Your task to perform on an android device: Search for custom wallets on Etsy. Image 0: 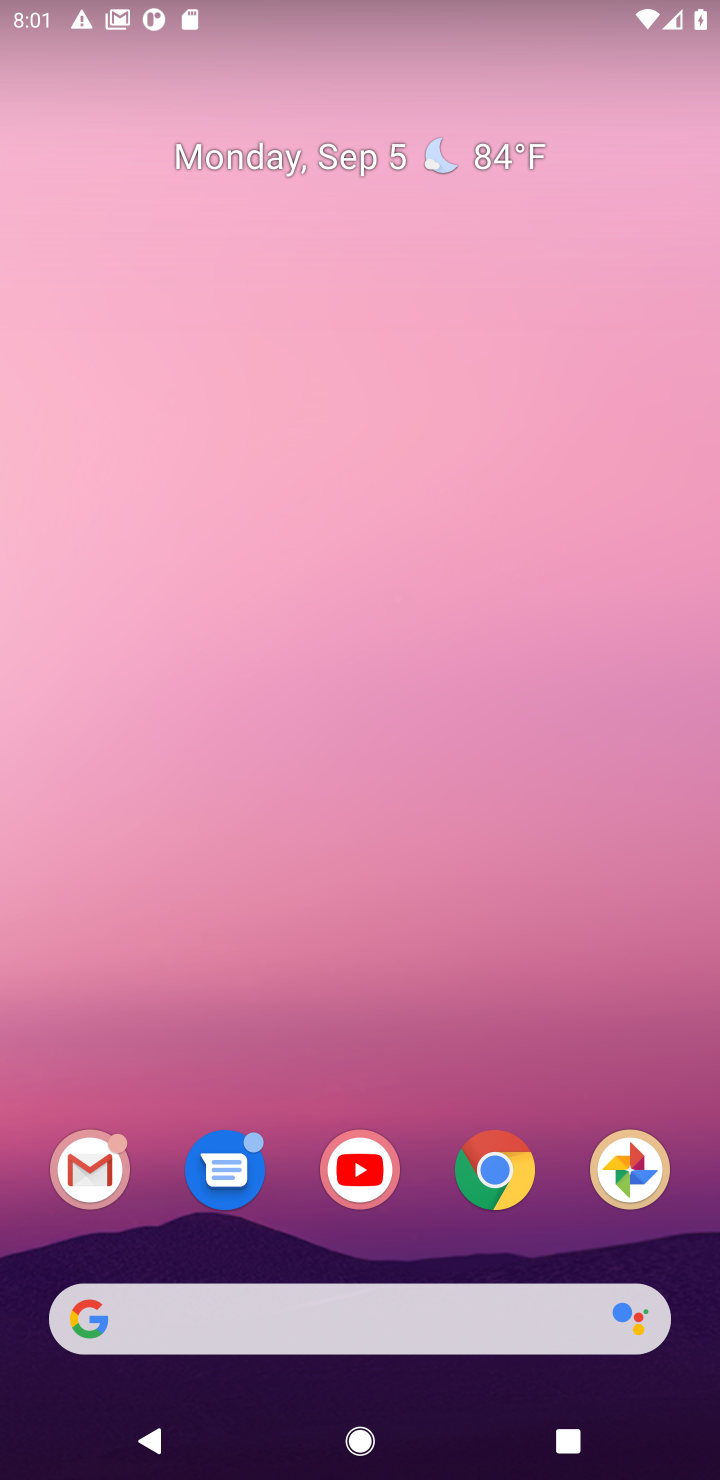
Step 0: click (490, 1191)
Your task to perform on an android device: Search for custom wallets on Etsy. Image 1: 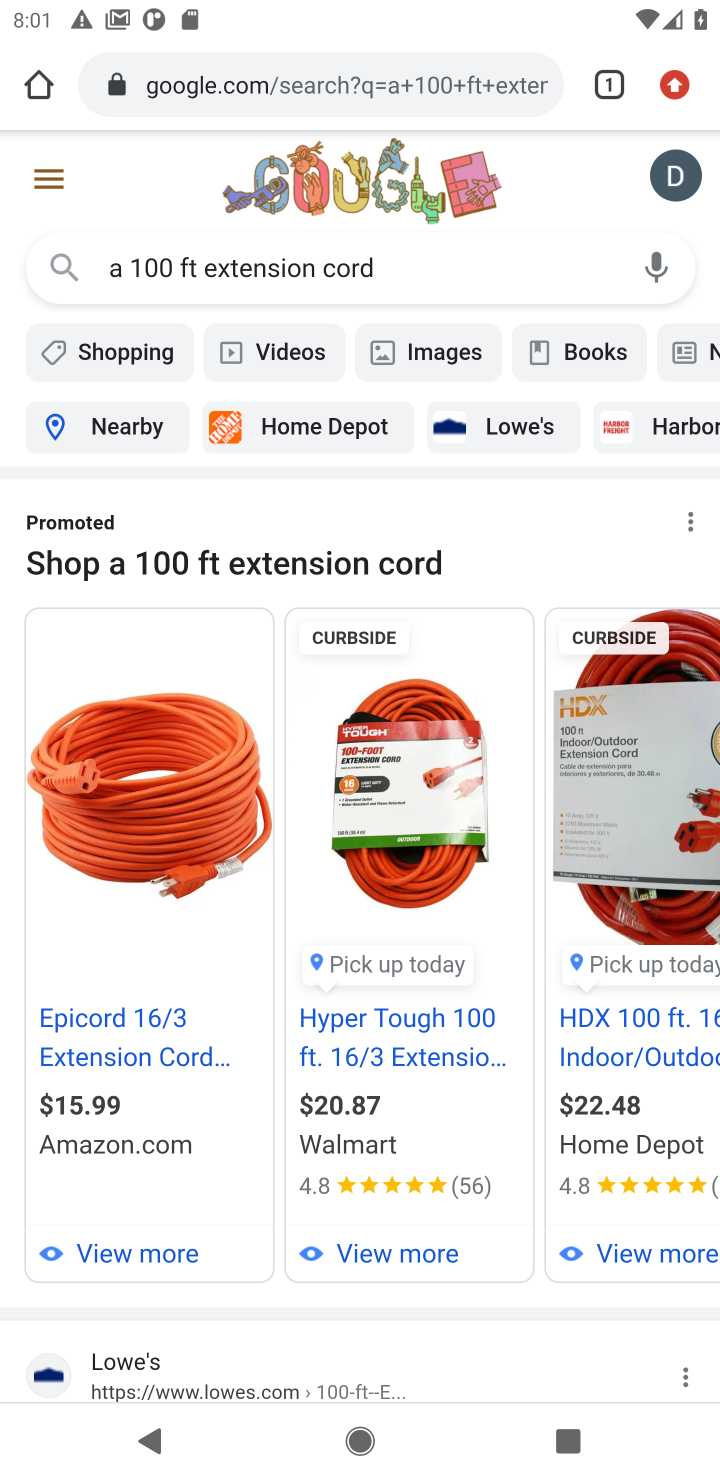
Step 1: click (226, 93)
Your task to perform on an android device: Search for custom wallets on Etsy. Image 2: 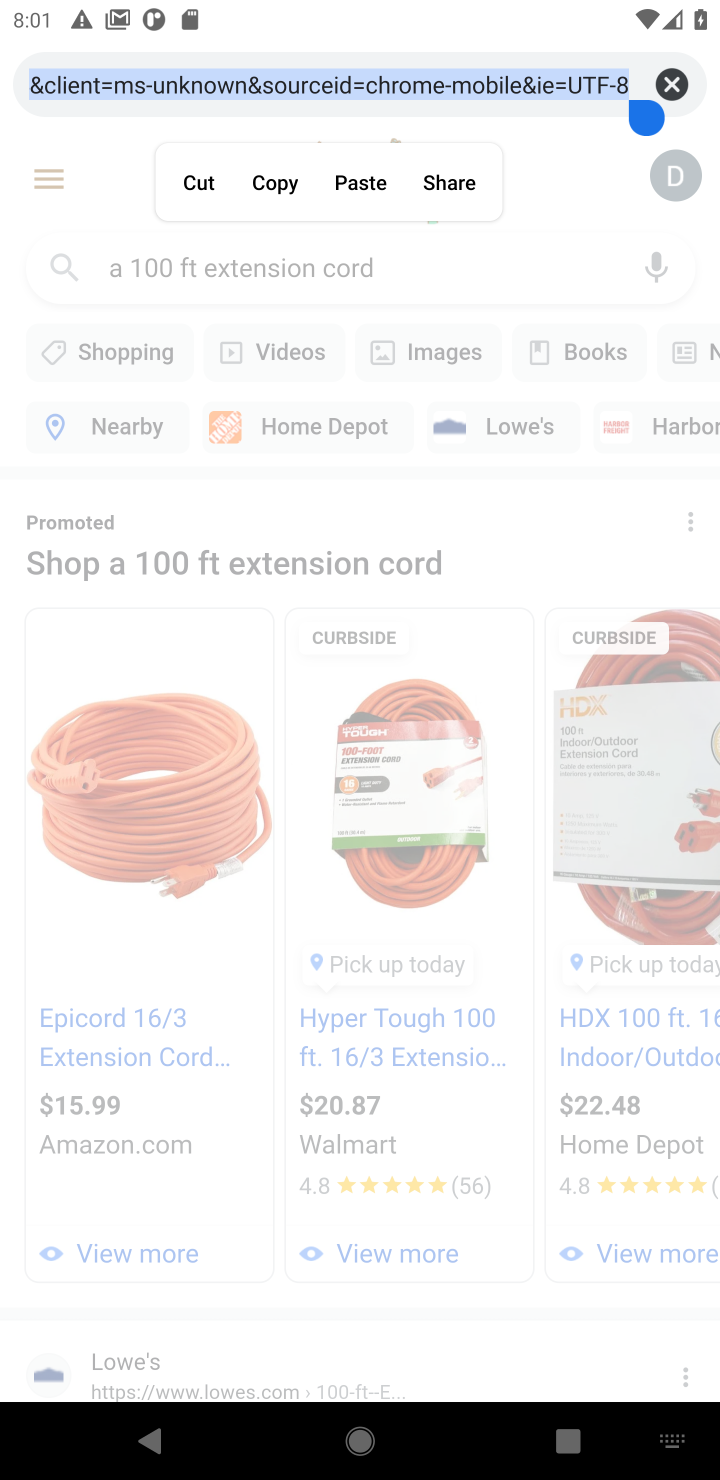
Step 2: type "Etsy"
Your task to perform on an android device: Search for custom wallets on Etsy. Image 3: 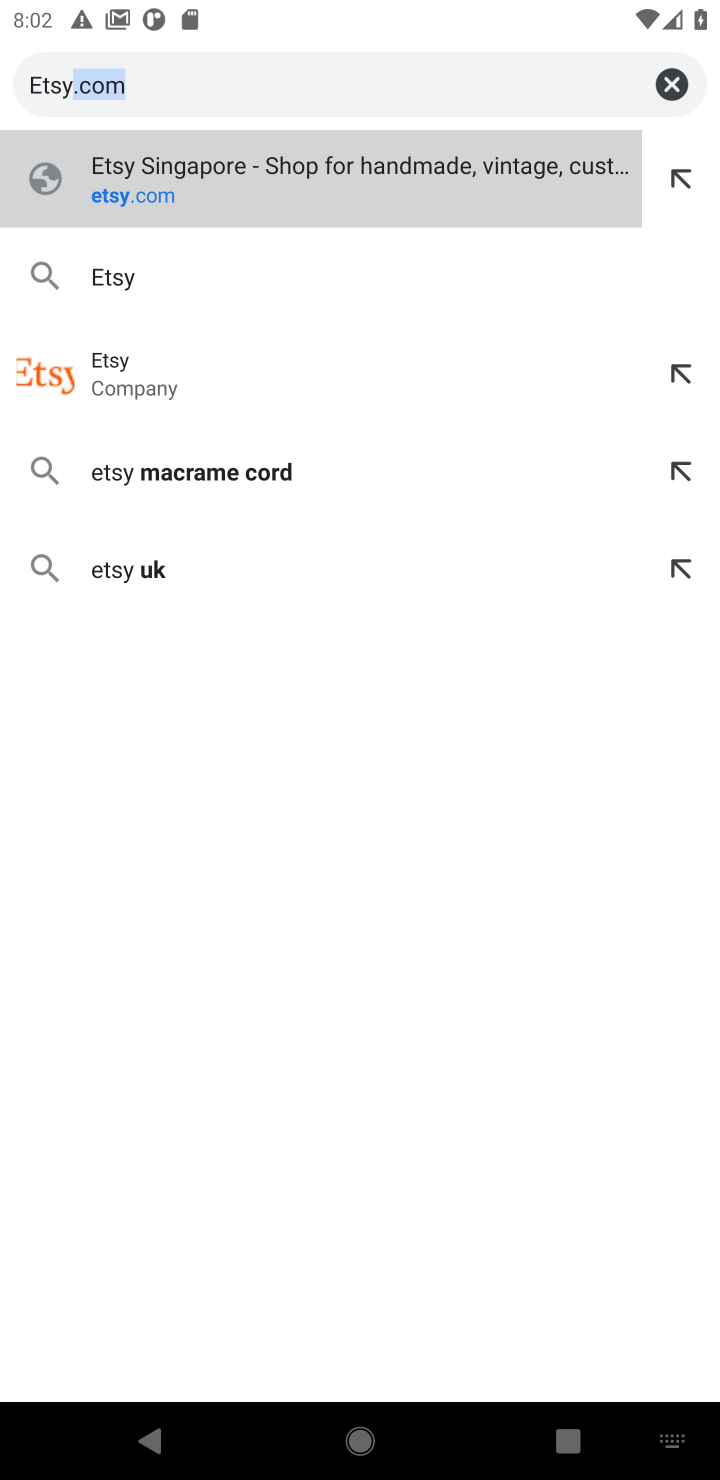
Step 3: click (137, 287)
Your task to perform on an android device: Search for custom wallets on Etsy. Image 4: 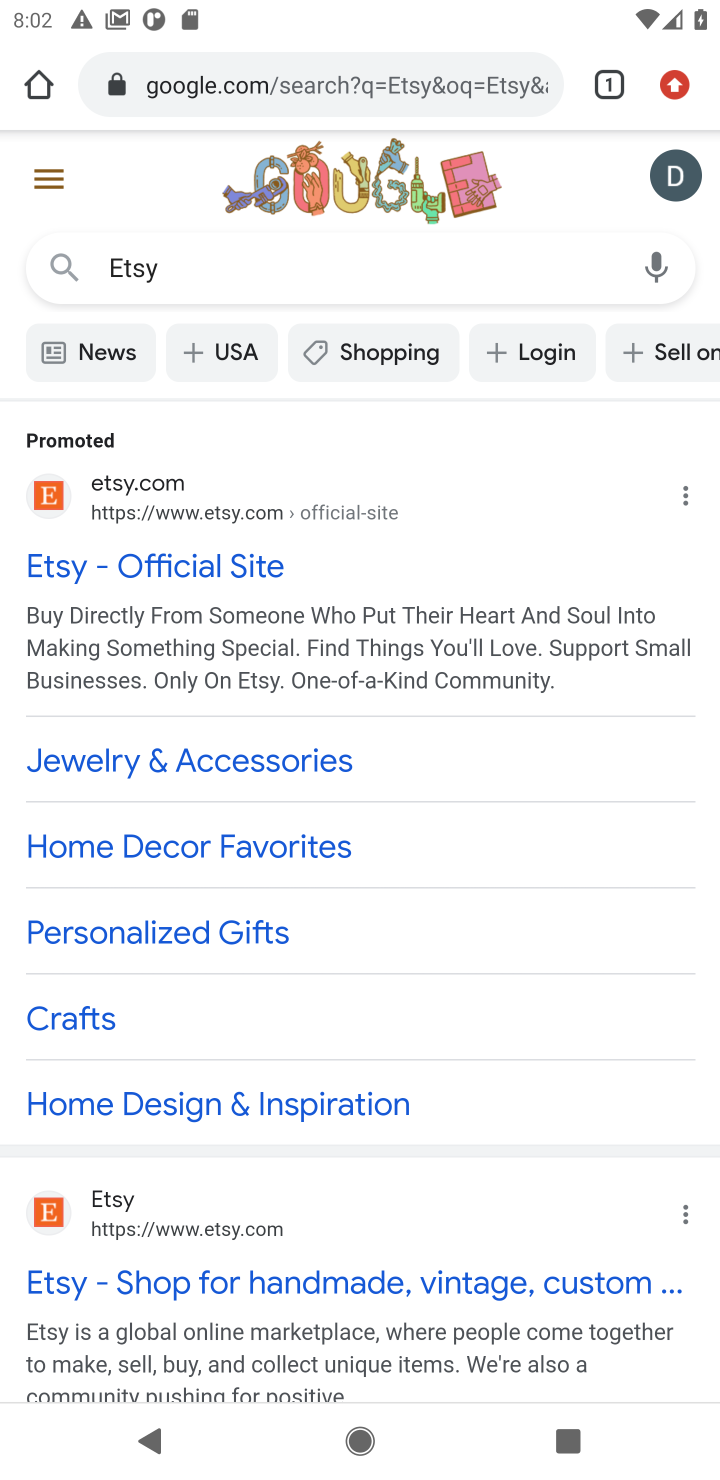
Step 4: click (143, 575)
Your task to perform on an android device: Search for custom wallets on Etsy. Image 5: 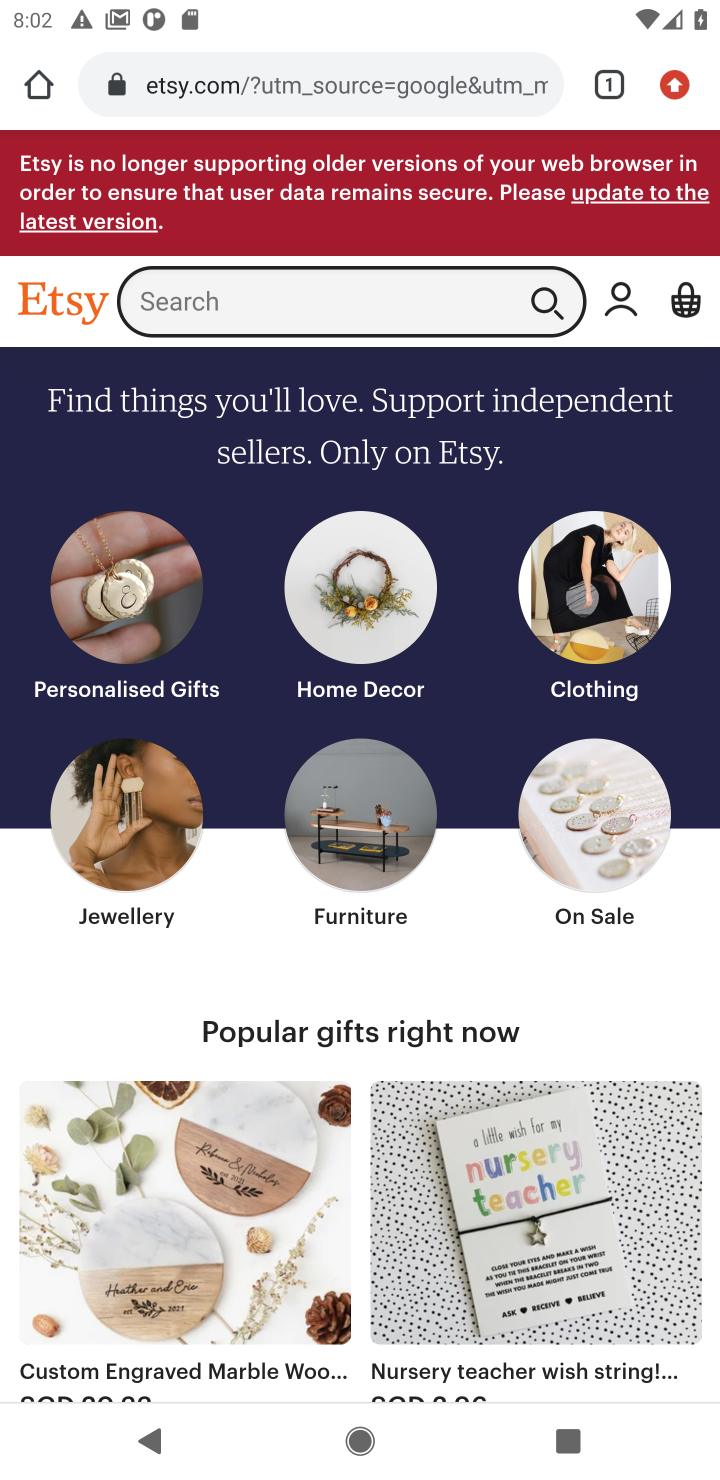
Step 5: click (295, 304)
Your task to perform on an android device: Search for custom wallets on Etsy. Image 6: 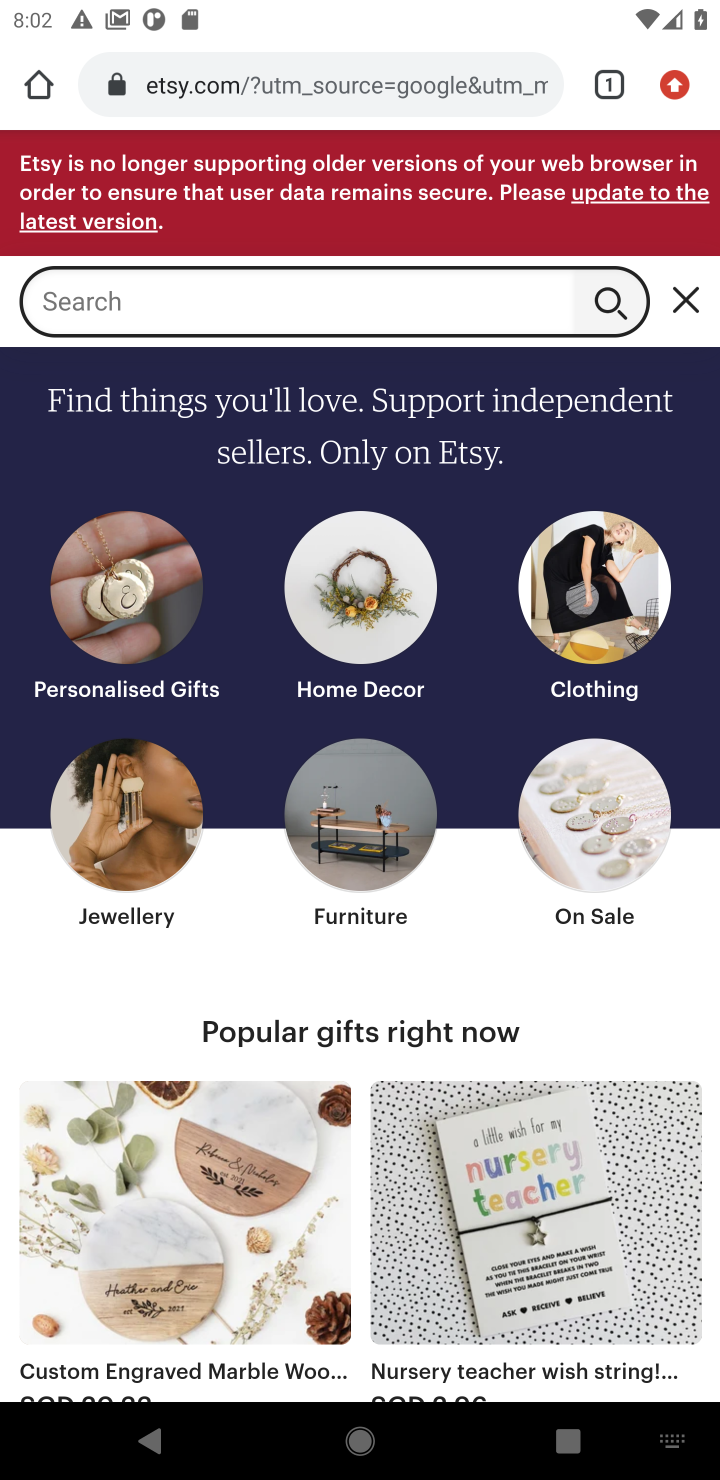
Step 6: type "custom wallets"
Your task to perform on an android device: Search for custom wallets on Etsy. Image 7: 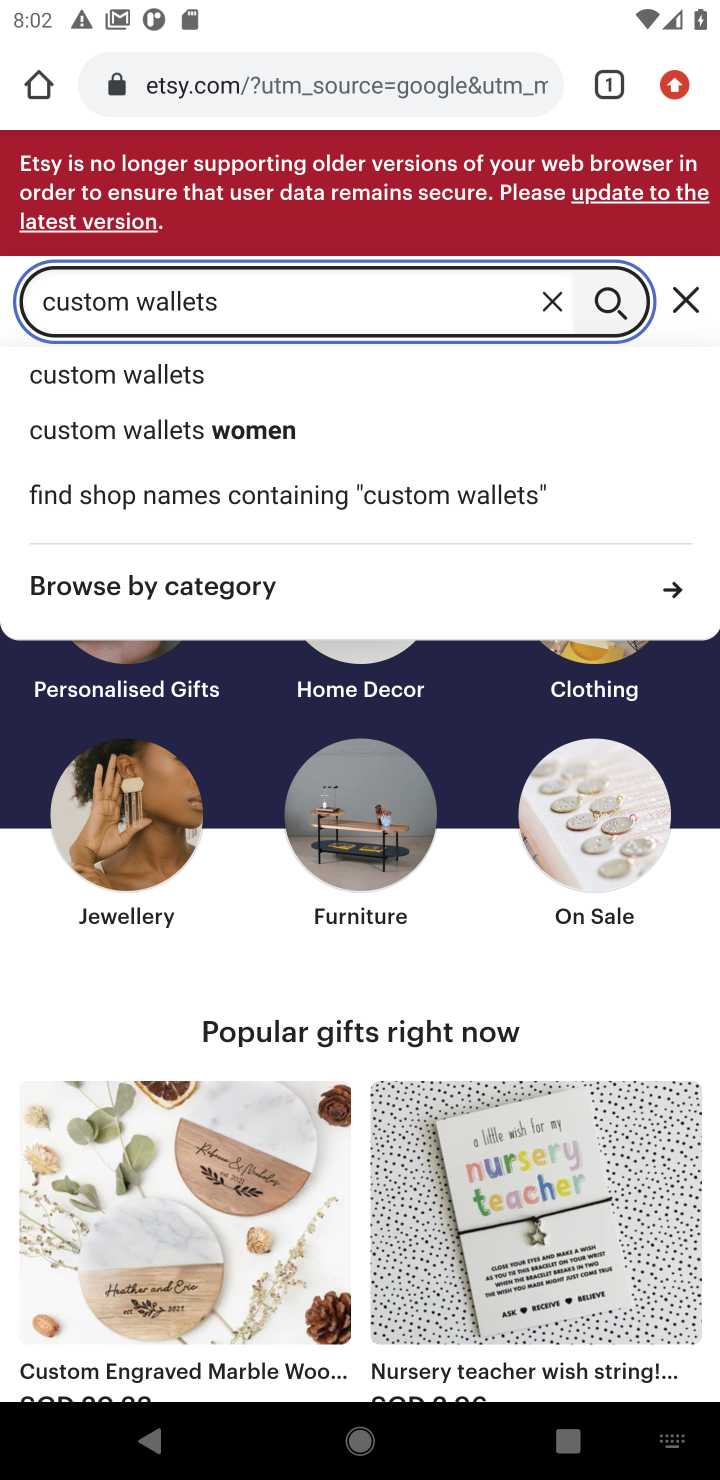
Step 7: click (181, 373)
Your task to perform on an android device: Search for custom wallets on Etsy. Image 8: 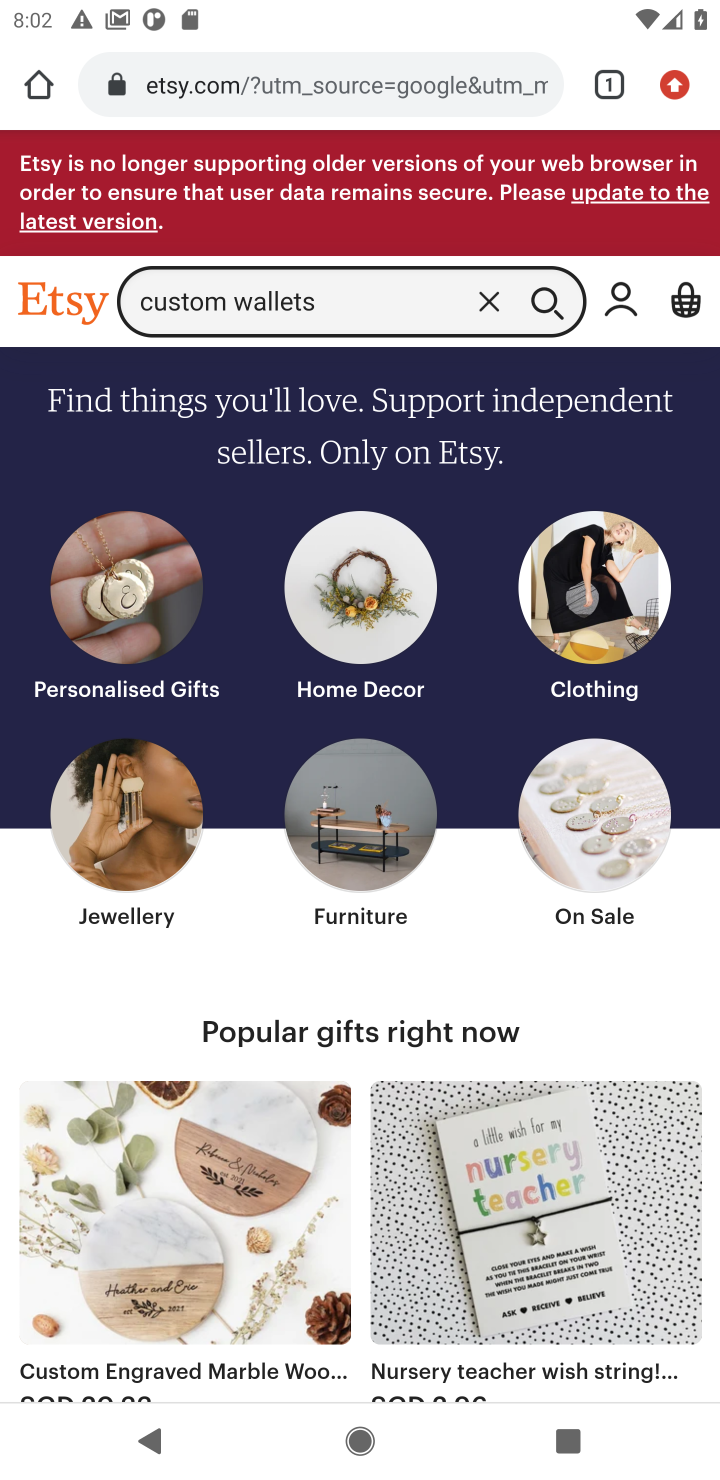
Step 8: click (548, 299)
Your task to perform on an android device: Search for custom wallets on Etsy. Image 9: 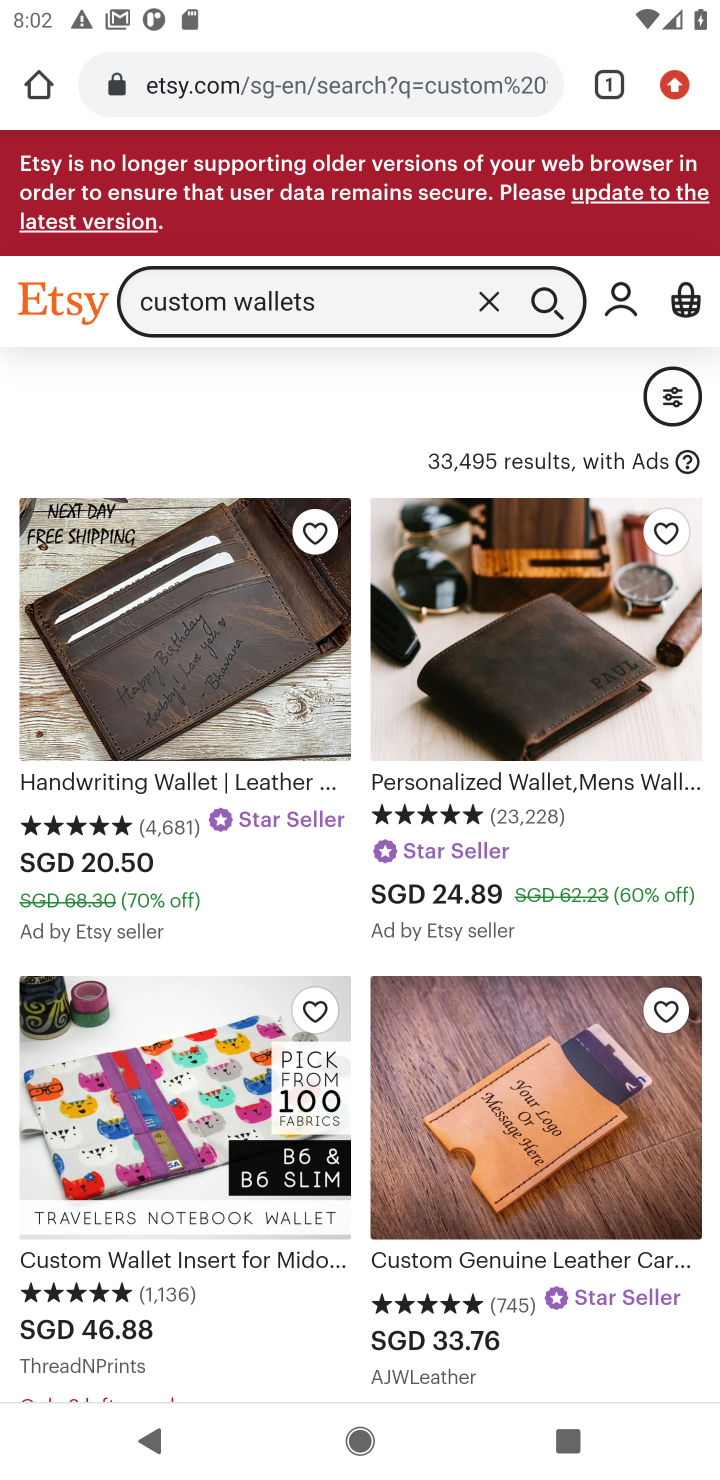
Step 9: task complete